Your task to perform on an android device: change keyboard looks Image 0: 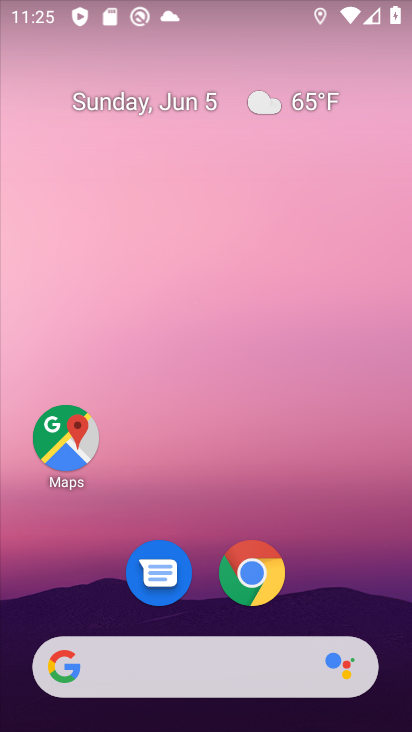
Step 0: drag from (207, 609) to (218, 35)
Your task to perform on an android device: change keyboard looks Image 1: 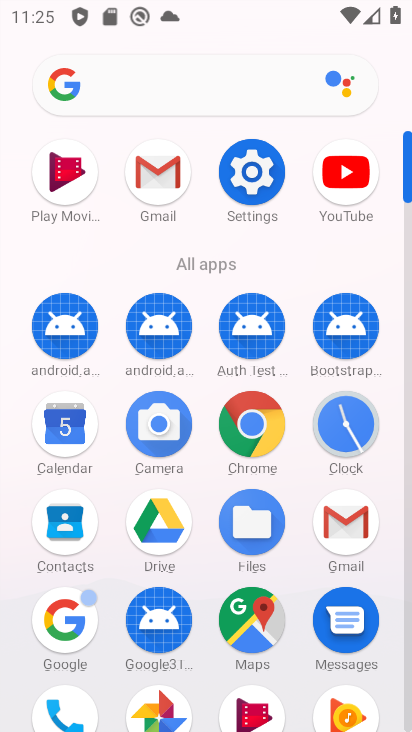
Step 1: click (255, 166)
Your task to perform on an android device: change keyboard looks Image 2: 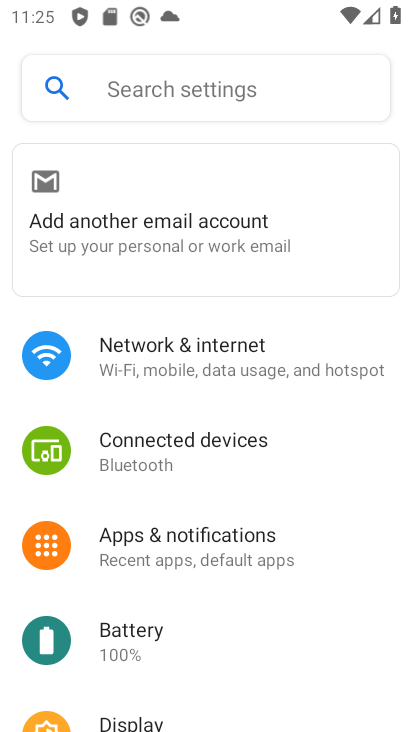
Step 2: drag from (223, 687) to (228, 96)
Your task to perform on an android device: change keyboard looks Image 3: 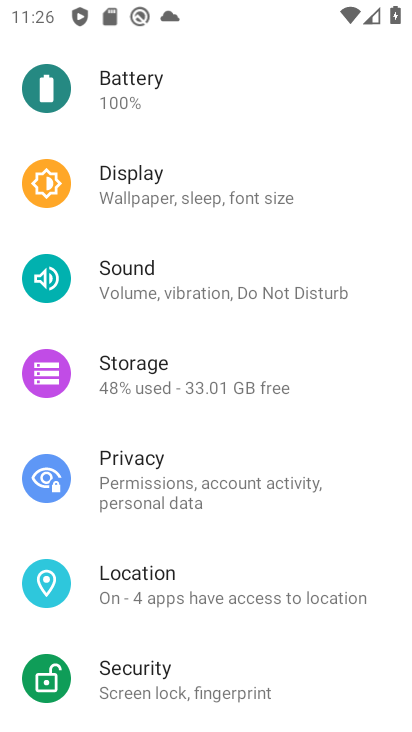
Step 3: drag from (231, 663) to (183, 37)
Your task to perform on an android device: change keyboard looks Image 4: 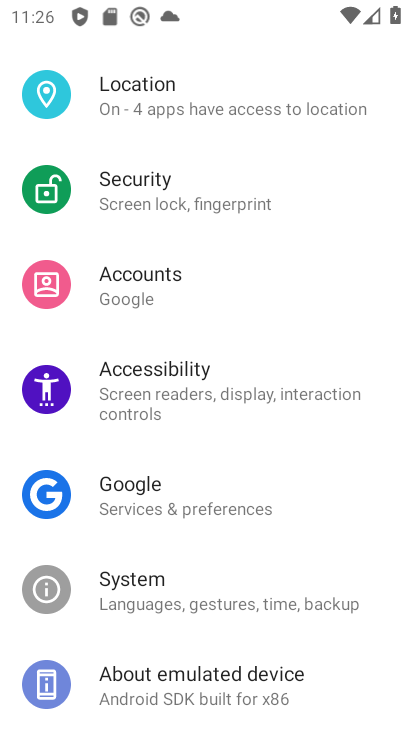
Step 4: click (194, 578)
Your task to perform on an android device: change keyboard looks Image 5: 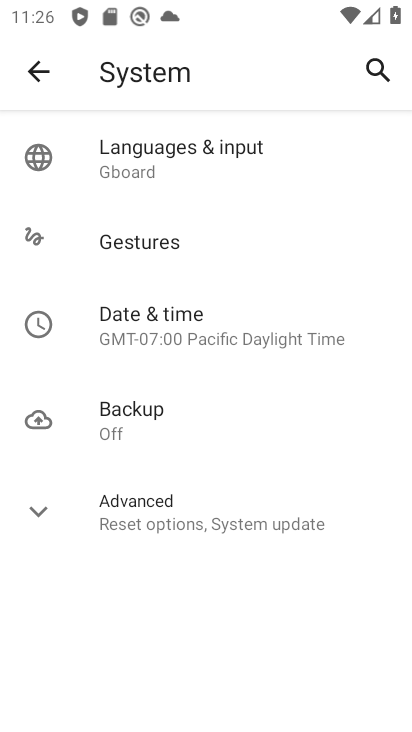
Step 5: click (66, 153)
Your task to perform on an android device: change keyboard looks Image 6: 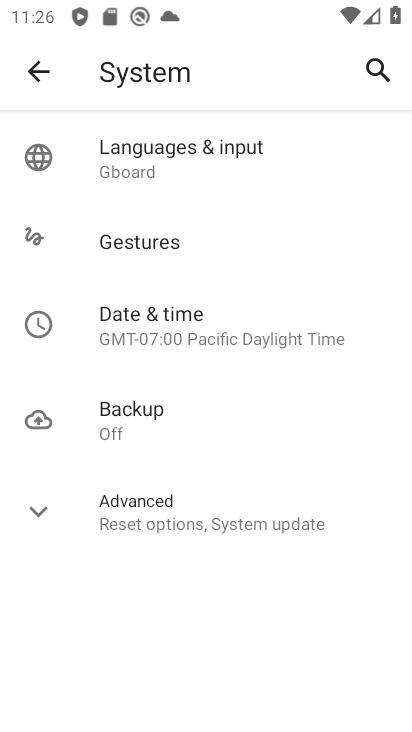
Step 6: click (66, 153)
Your task to perform on an android device: change keyboard looks Image 7: 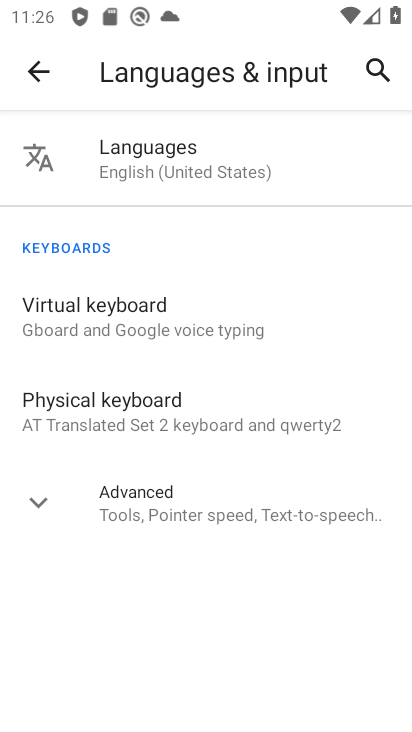
Step 7: click (112, 311)
Your task to perform on an android device: change keyboard looks Image 8: 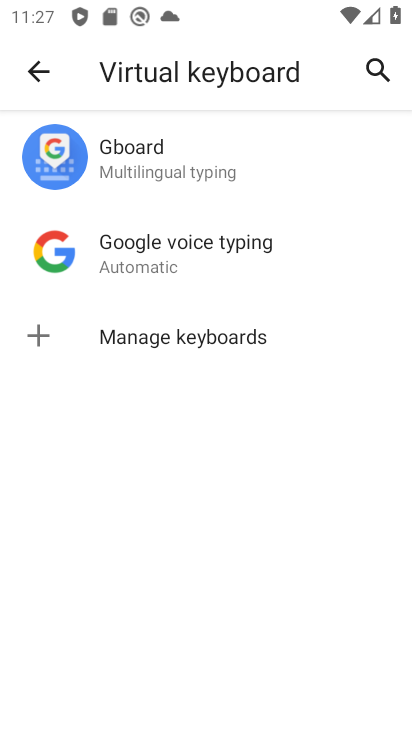
Step 8: click (137, 142)
Your task to perform on an android device: change keyboard looks Image 9: 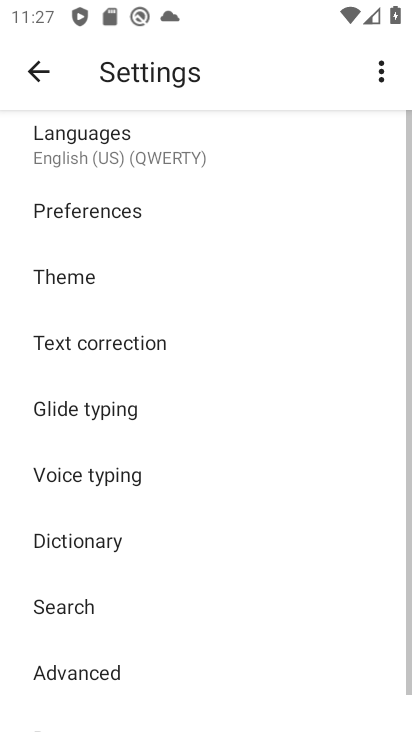
Step 9: click (104, 271)
Your task to perform on an android device: change keyboard looks Image 10: 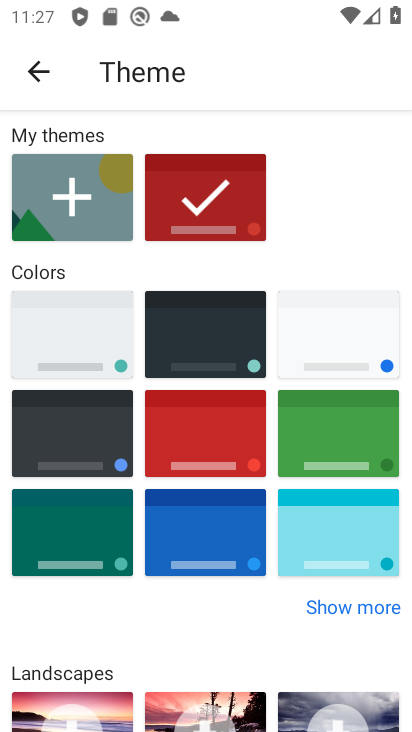
Step 10: click (340, 330)
Your task to perform on an android device: change keyboard looks Image 11: 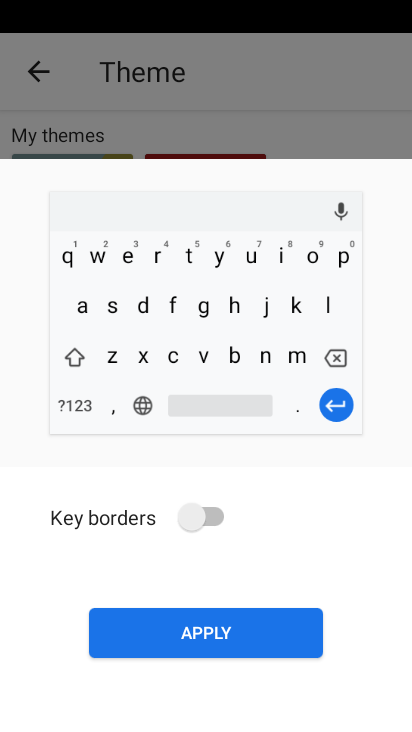
Step 11: click (201, 635)
Your task to perform on an android device: change keyboard looks Image 12: 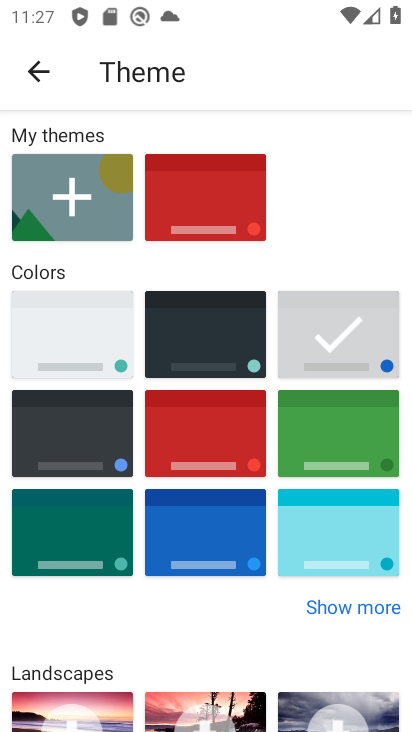
Step 12: task complete